Your task to perform on an android device: set default search engine in the chrome app Image 0: 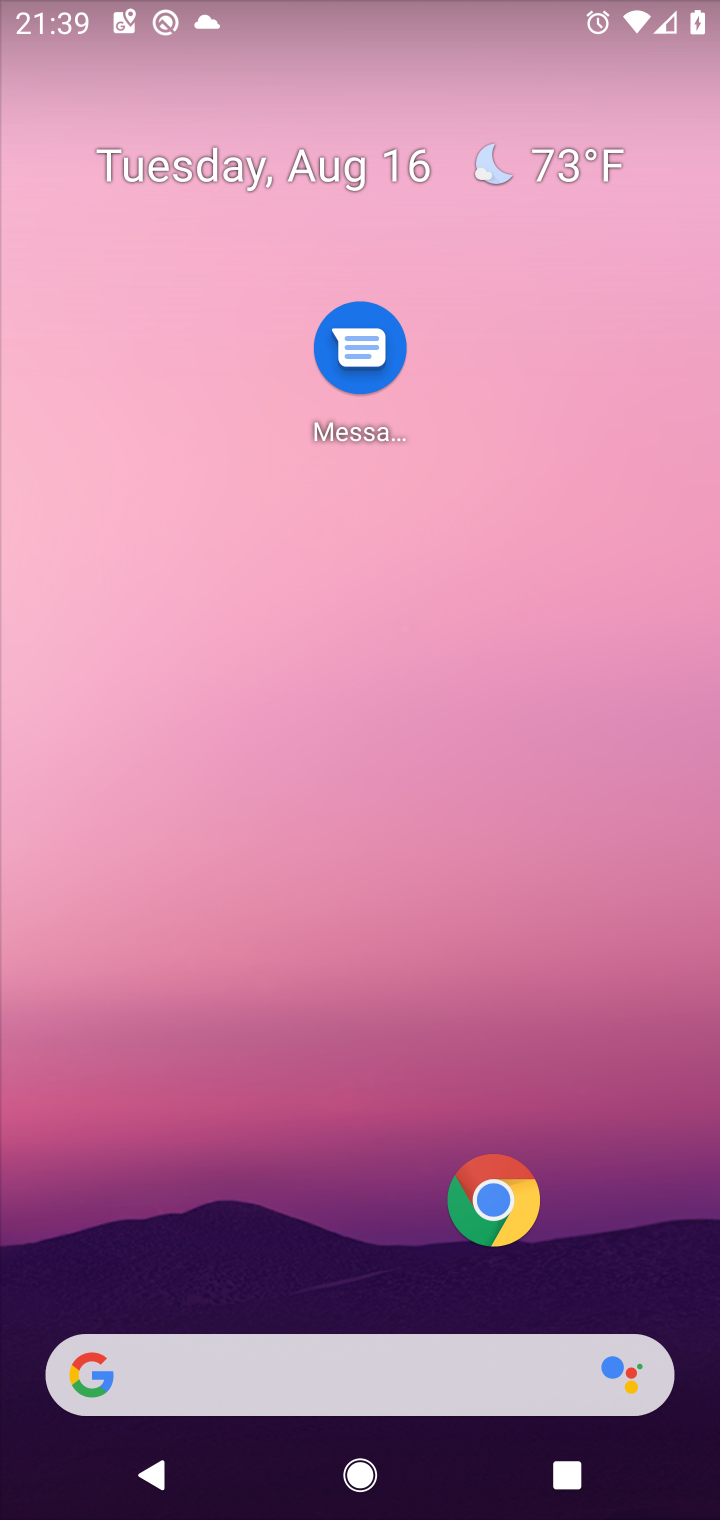
Step 0: click (511, 1211)
Your task to perform on an android device: set default search engine in the chrome app Image 1: 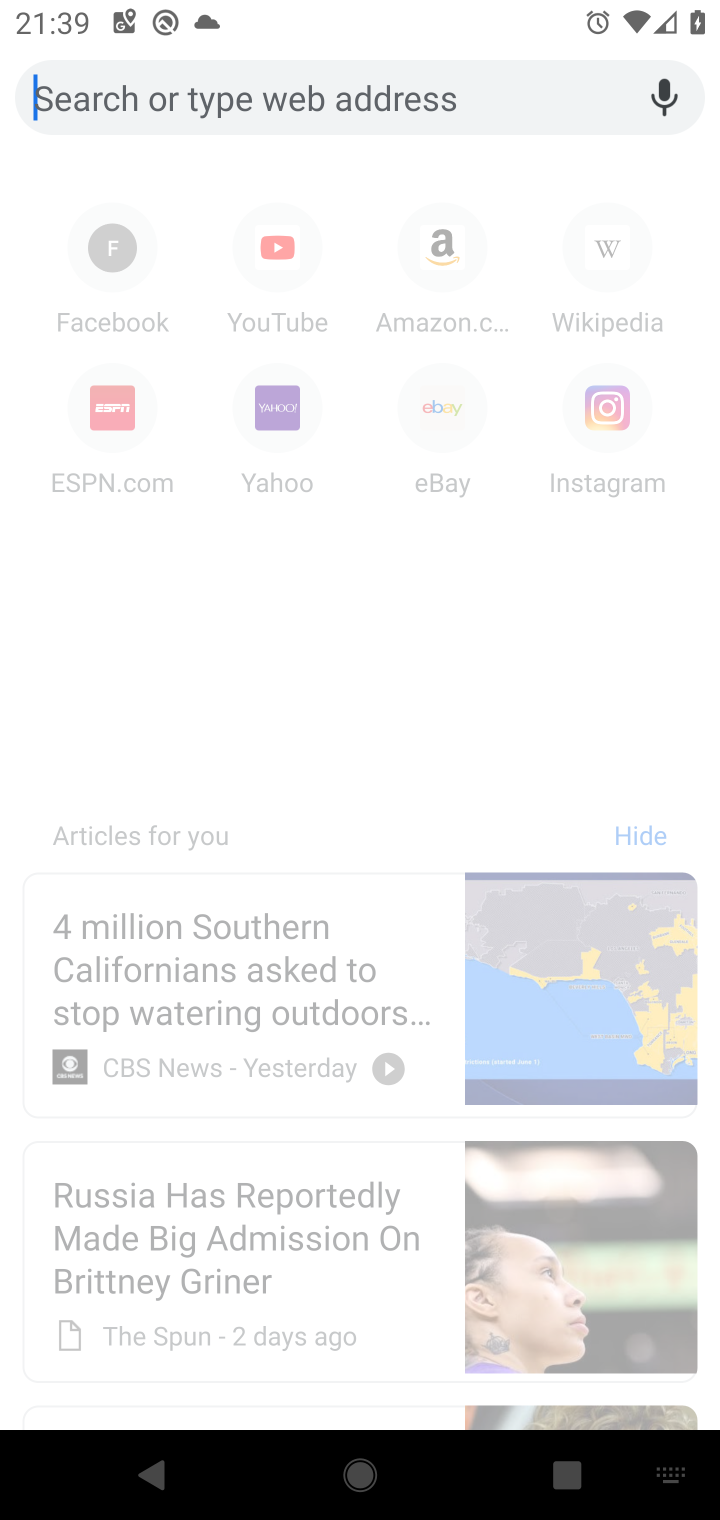
Step 1: click (302, 679)
Your task to perform on an android device: set default search engine in the chrome app Image 2: 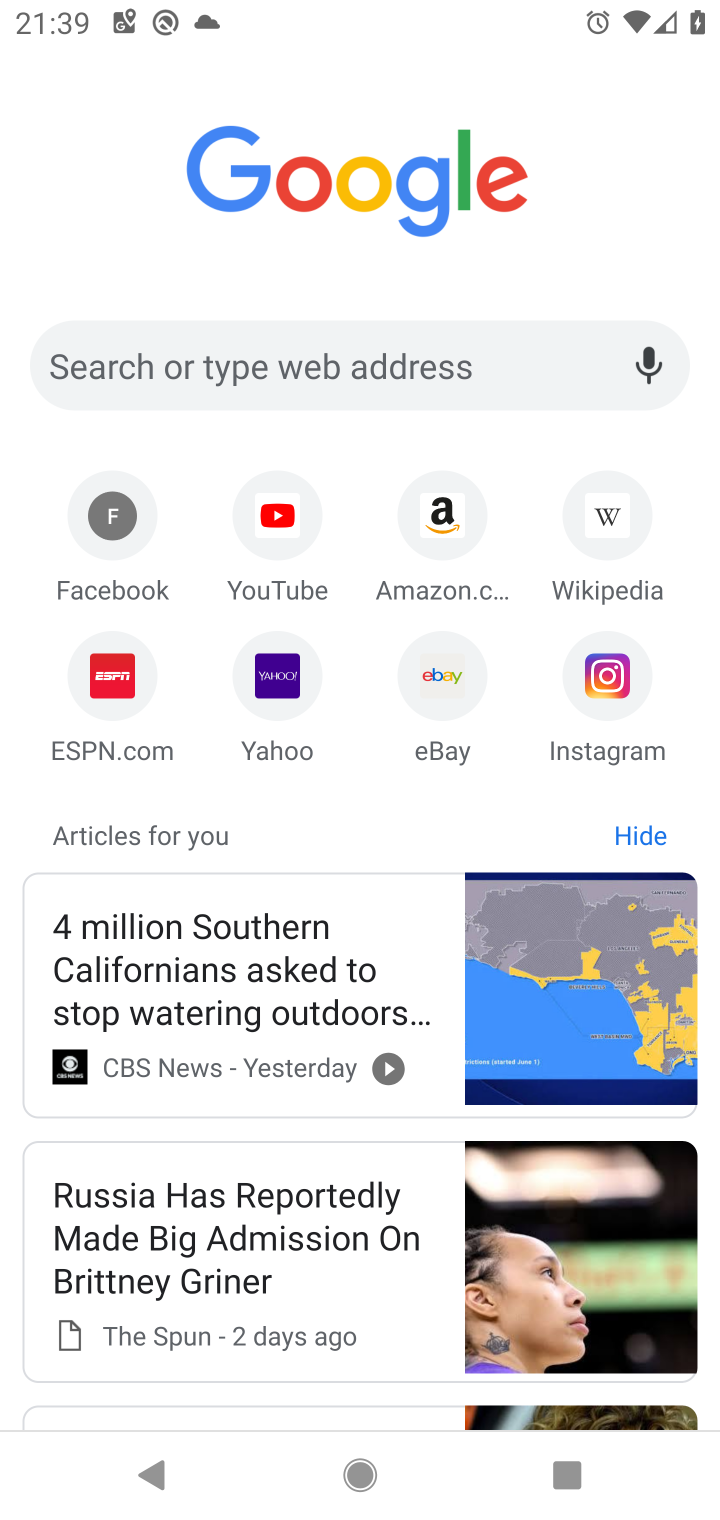
Step 2: click (508, 368)
Your task to perform on an android device: set default search engine in the chrome app Image 3: 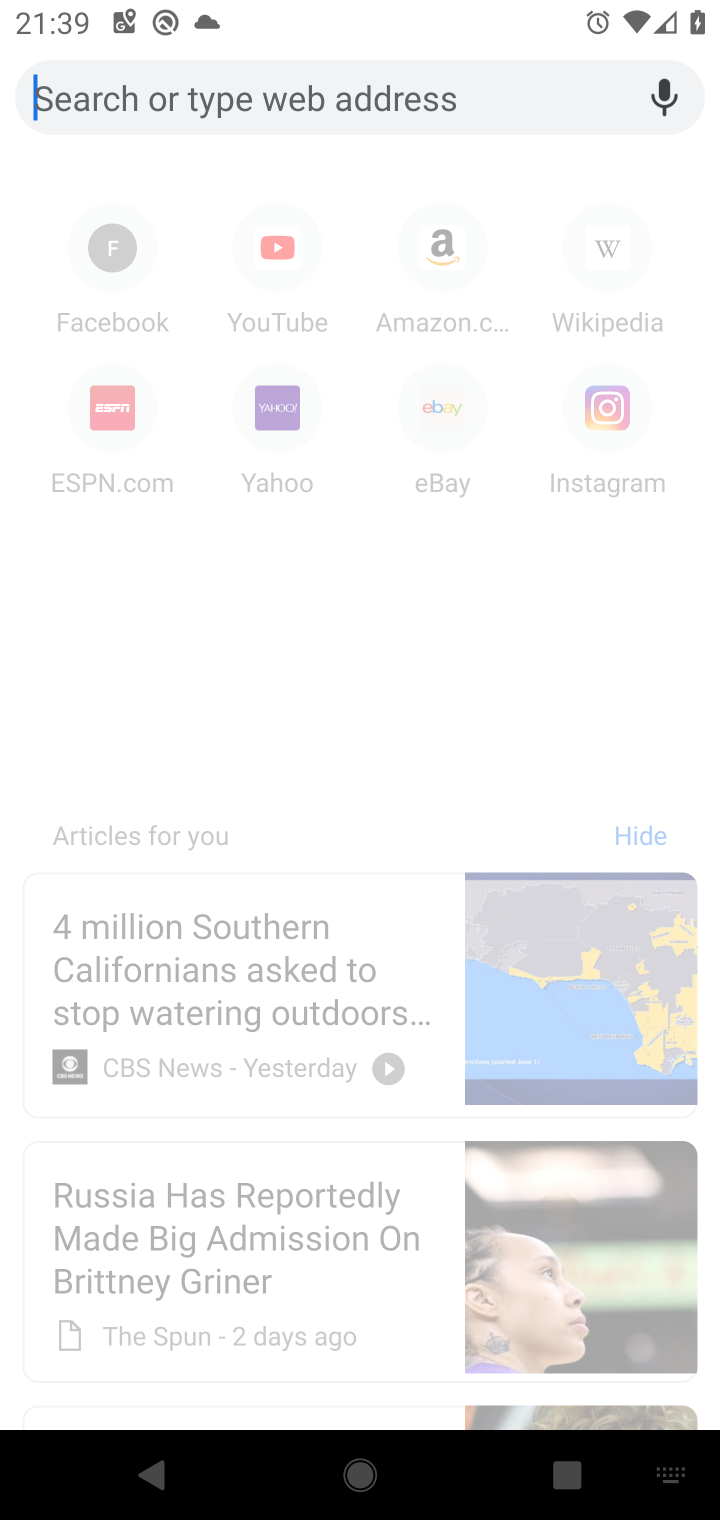
Step 3: click (260, 558)
Your task to perform on an android device: set default search engine in the chrome app Image 4: 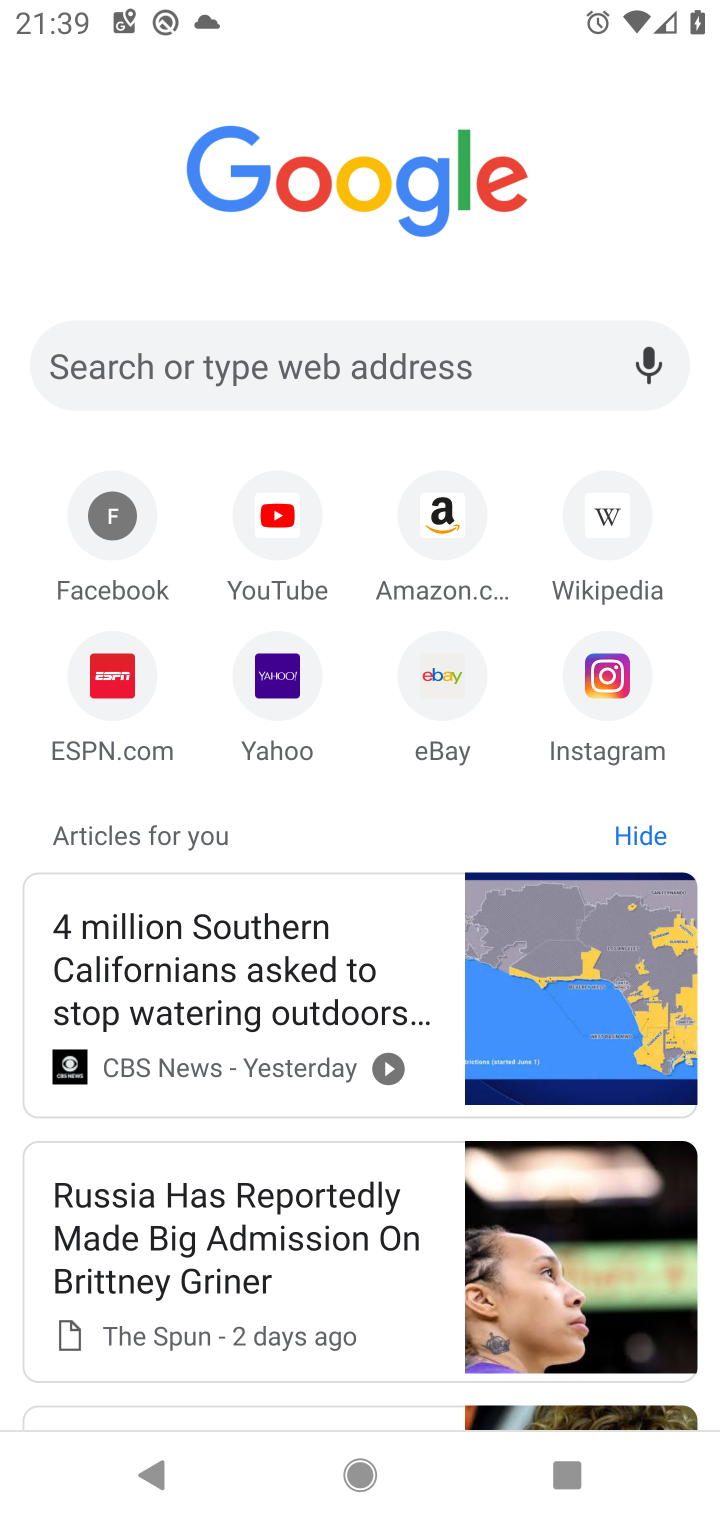
Step 4: task complete